Your task to perform on an android device: Do I have any events this weekend? Image 0: 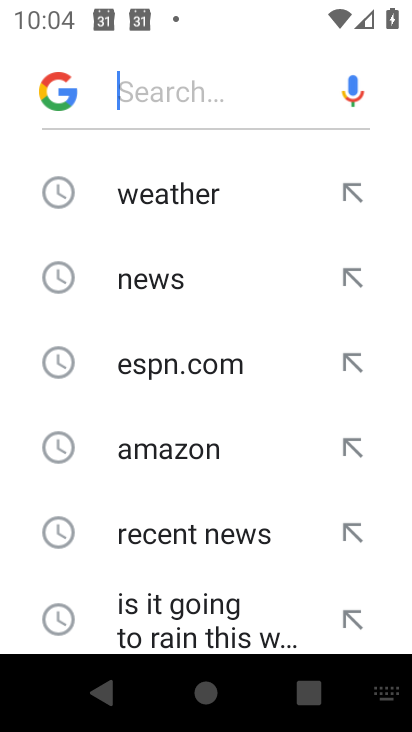
Step 0: press back button
Your task to perform on an android device: Do I have any events this weekend? Image 1: 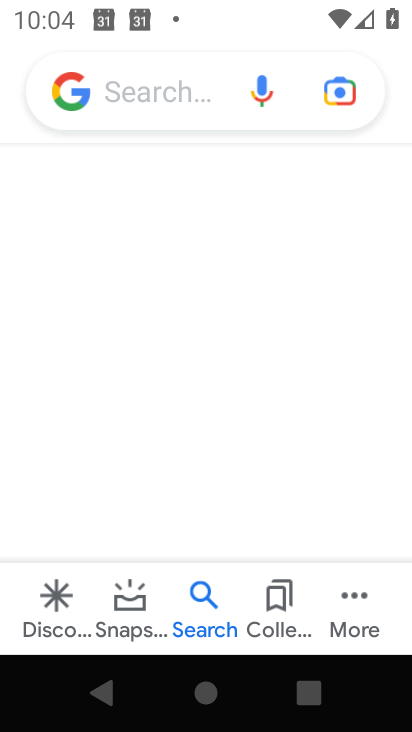
Step 1: press back button
Your task to perform on an android device: Do I have any events this weekend? Image 2: 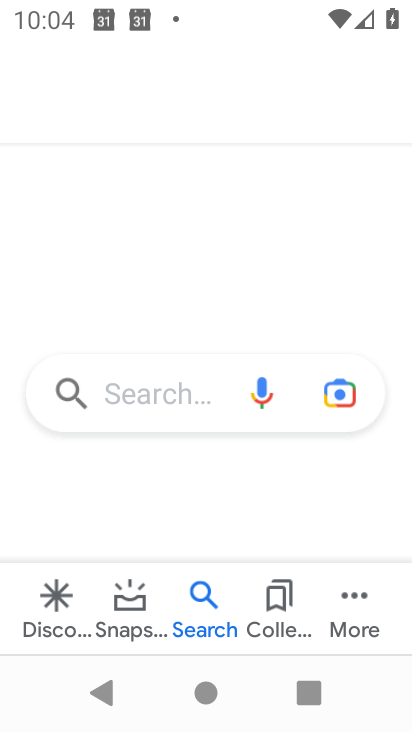
Step 2: press back button
Your task to perform on an android device: Do I have any events this weekend? Image 3: 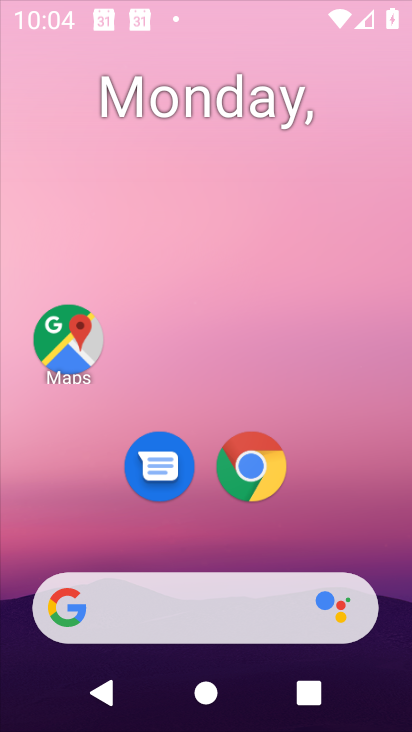
Step 3: press back button
Your task to perform on an android device: Do I have any events this weekend? Image 4: 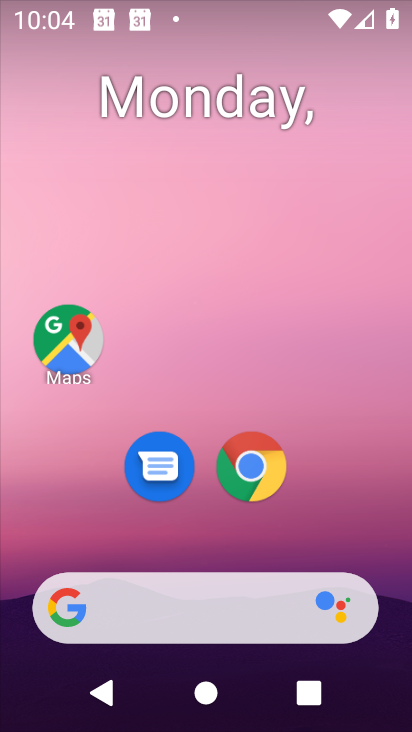
Step 4: press back button
Your task to perform on an android device: Do I have any events this weekend? Image 5: 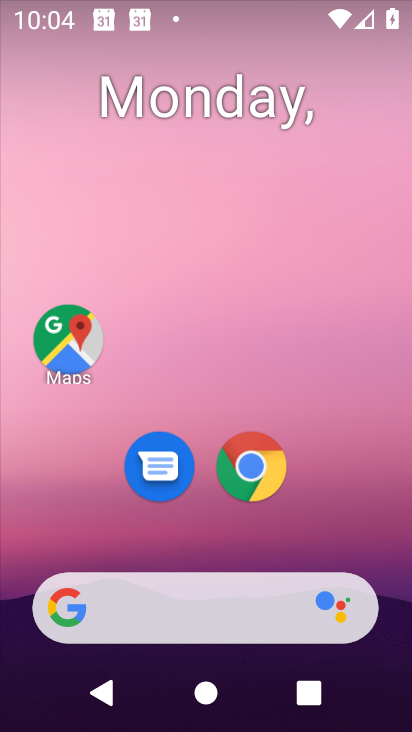
Step 5: drag from (314, 436) to (161, 122)
Your task to perform on an android device: Do I have any events this weekend? Image 6: 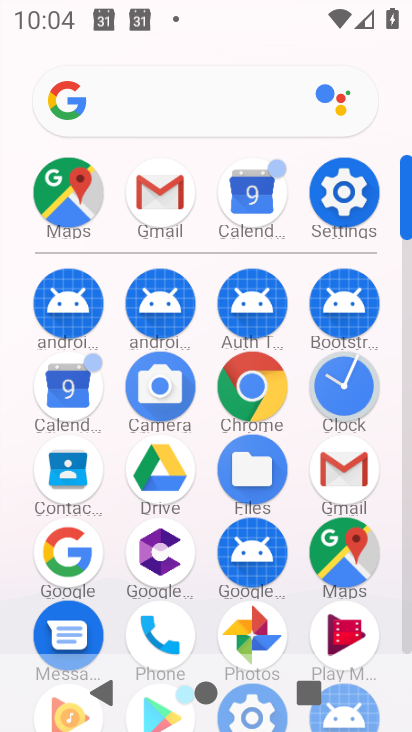
Step 6: click (70, 413)
Your task to perform on an android device: Do I have any events this weekend? Image 7: 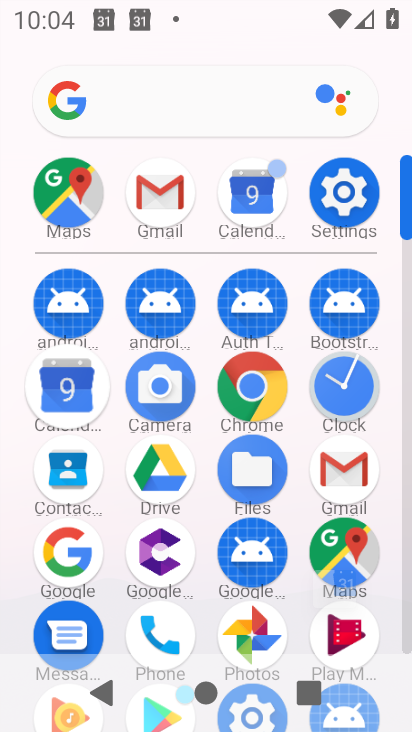
Step 7: click (70, 412)
Your task to perform on an android device: Do I have any events this weekend? Image 8: 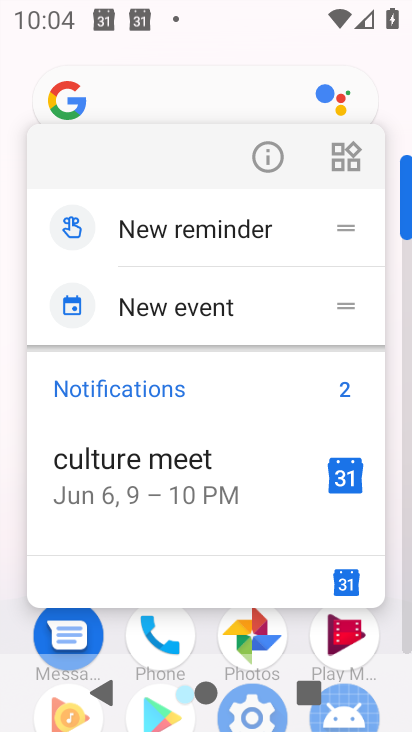
Step 8: click (73, 408)
Your task to perform on an android device: Do I have any events this weekend? Image 9: 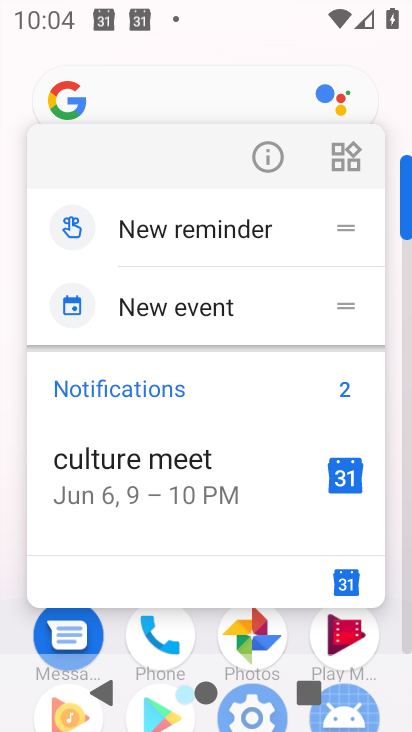
Step 9: click (186, 92)
Your task to perform on an android device: Do I have any events this weekend? Image 10: 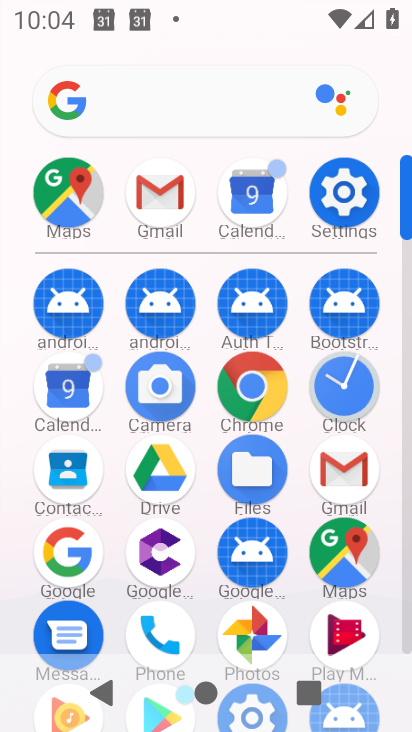
Step 10: click (186, 91)
Your task to perform on an android device: Do I have any events this weekend? Image 11: 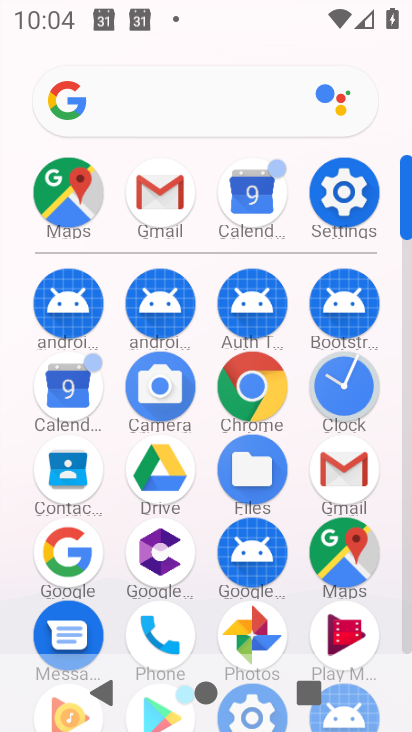
Step 11: click (186, 91)
Your task to perform on an android device: Do I have any events this weekend? Image 12: 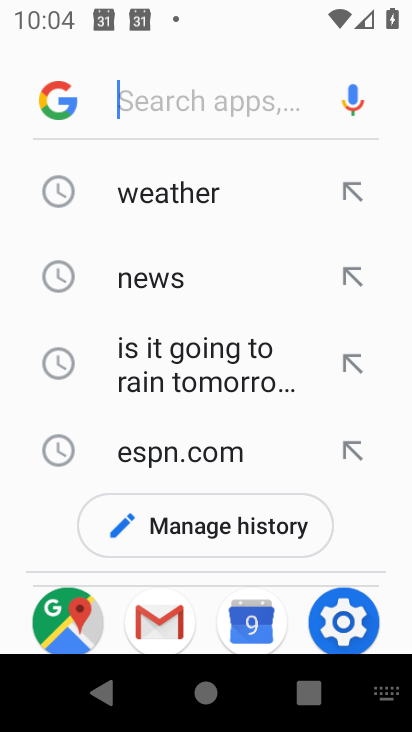
Step 12: click (73, 394)
Your task to perform on an android device: Do I have any events this weekend? Image 13: 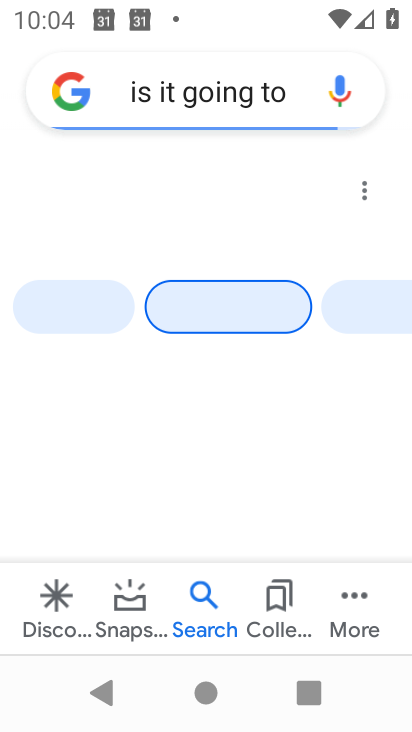
Step 13: press back button
Your task to perform on an android device: Do I have any events this weekend? Image 14: 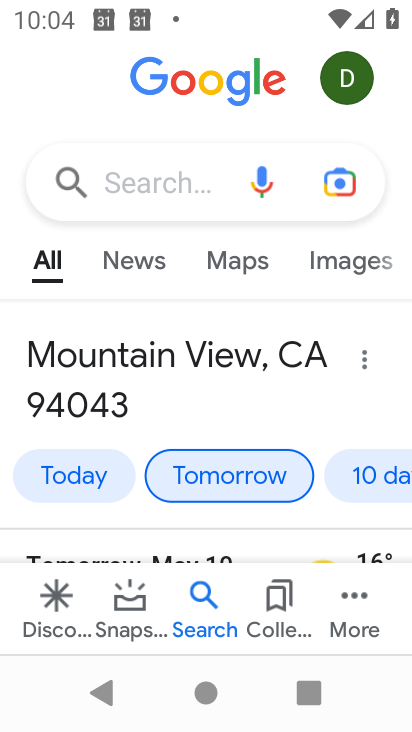
Step 14: press back button
Your task to perform on an android device: Do I have any events this weekend? Image 15: 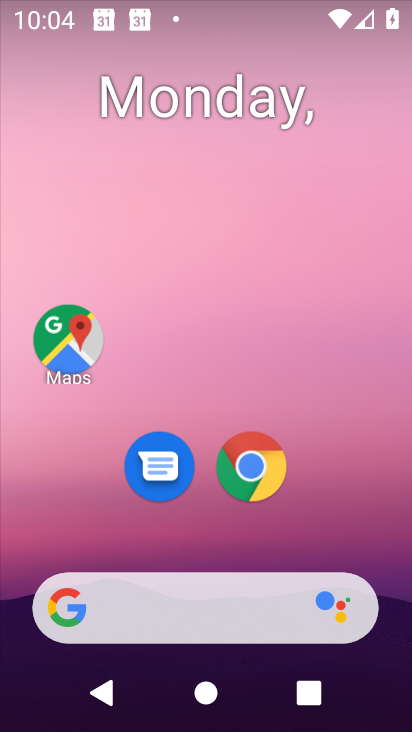
Step 15: drag from (307, 514) to (198, 7)
Your task to perform on an android device: Do I have any events this weekend? Image 16: 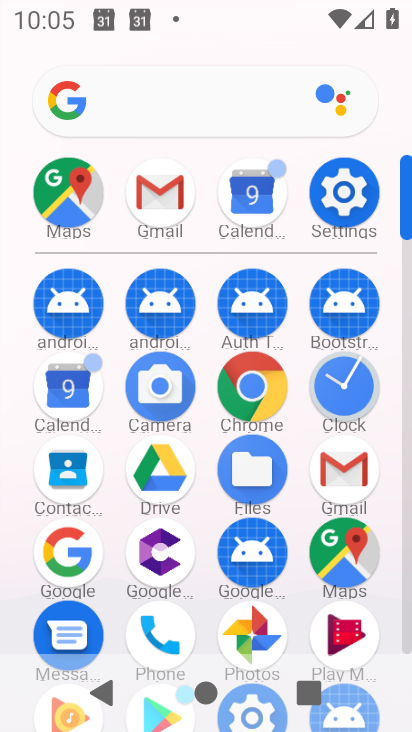
Step 16: click (50, 401)
Your task to perform on an android device: Do I have any events this weekend? Image 17: 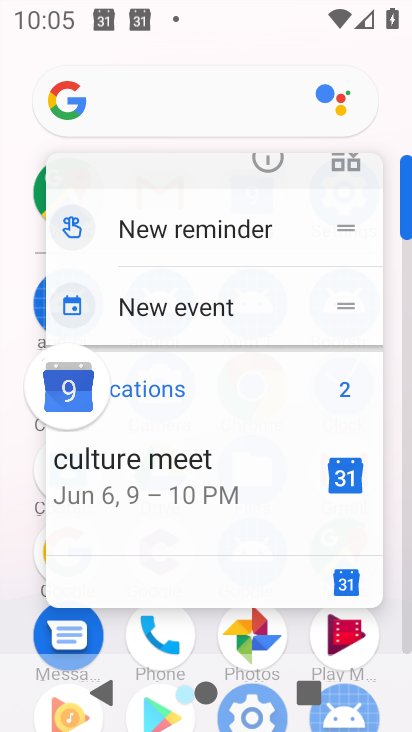
Step 17: click (56, 395)
Your task to perform on an android device: Do I have any events this weekend? Image 18: 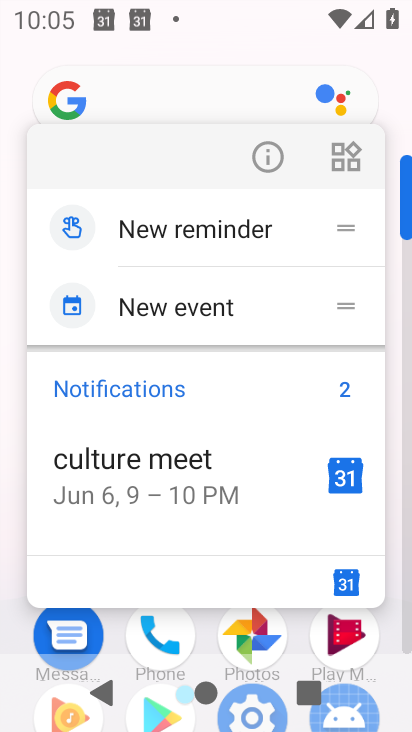
Step 18: click (60, 390)
Your task to perform on an android device: Do I have any events this weekend? Image 19: 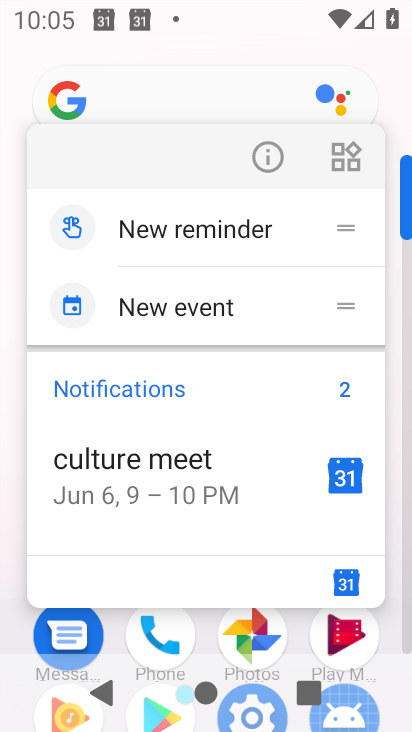
Step 19: click (61, 389)
Your task to perform on an android device: Do I have any events this weekend? Image 20: 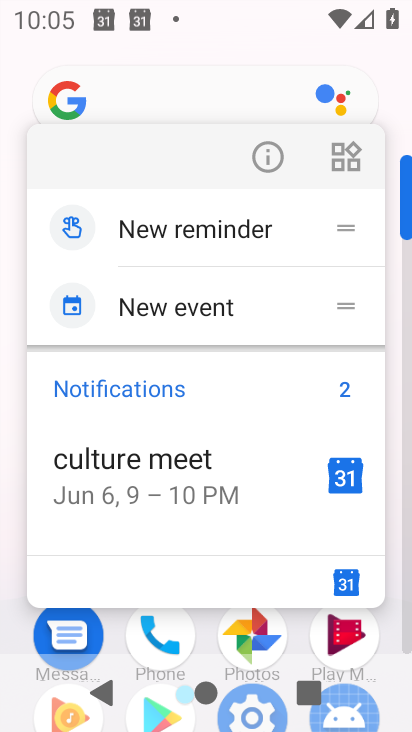
Step 20: click (65, 387)
Your task to perform on an android device: Do I have any events this weekend? Image 21: 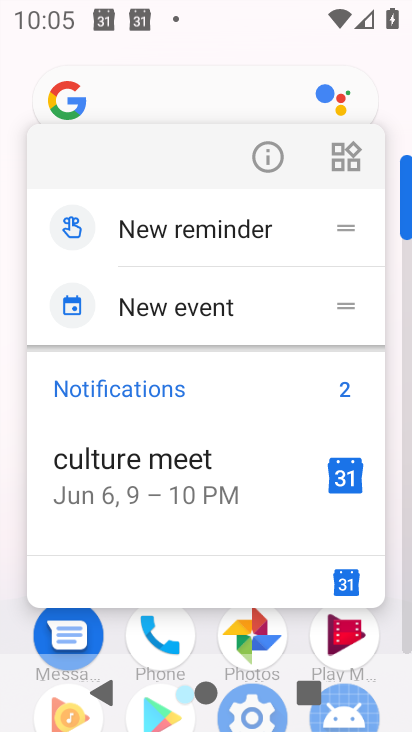
Step 21: click (168, 309)
Your task to perform on an android device: Do I have any events this weekend? Image 22: 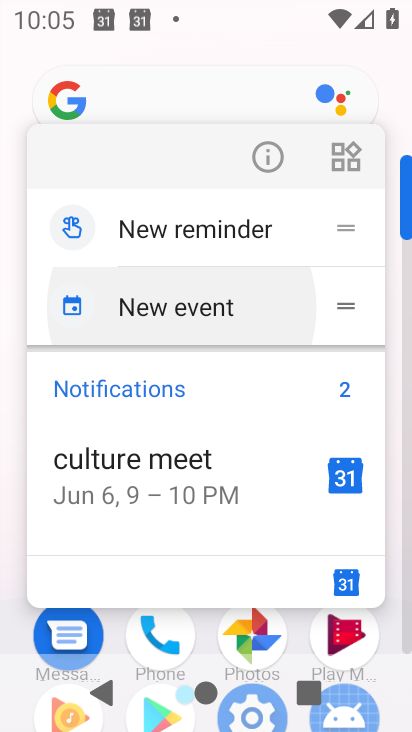
Step 22: click (168, 304)
Your task to perform on an android device: Do I have any events this weekend? Image 23: 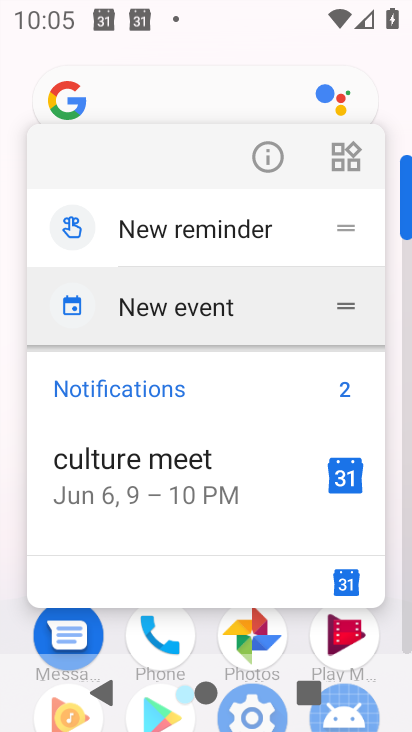
Step 23: click (175, 303)
Your task to perform on an android device: Do I have any events this weekend? Image 24: 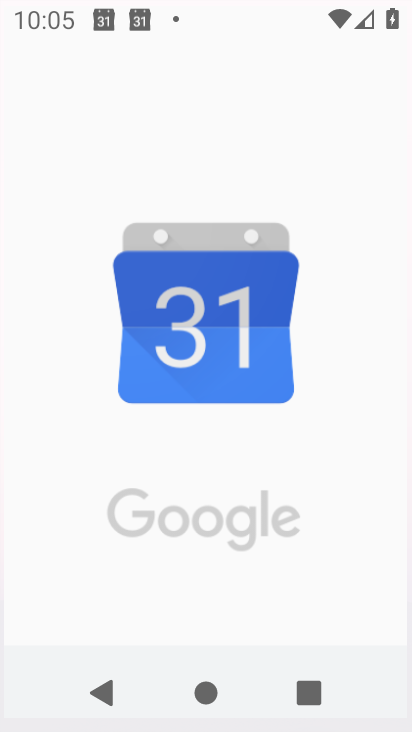
Step 24: click (184, 298)
Your task to perform on an android device: Do I have any events this weekend? Image 25: 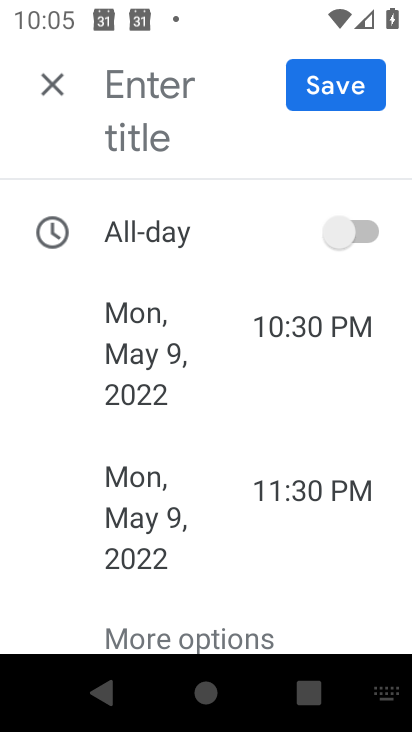
Step 25: drag from (243, 481) to (166, 84)
Your task to perform on an android device: Do I have any events this weekend? Image 26: 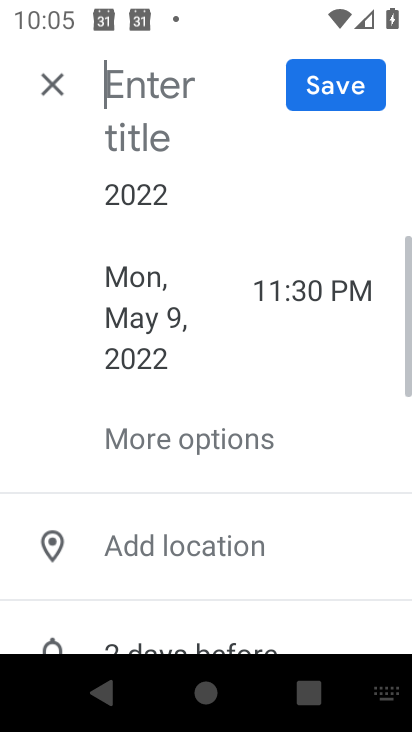
Step 26: drag from (167, 341) to (137, 70)
Your task to perform on an android device: Do I have any events this weekend? Image 27: 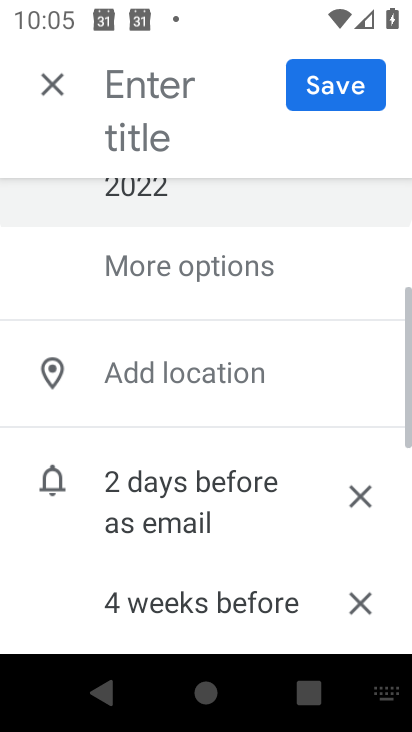
Step 27: drag from (171, 309) to (134, 114)
Your task to perform on an android device: Do I have any events this weekend? Image 28: 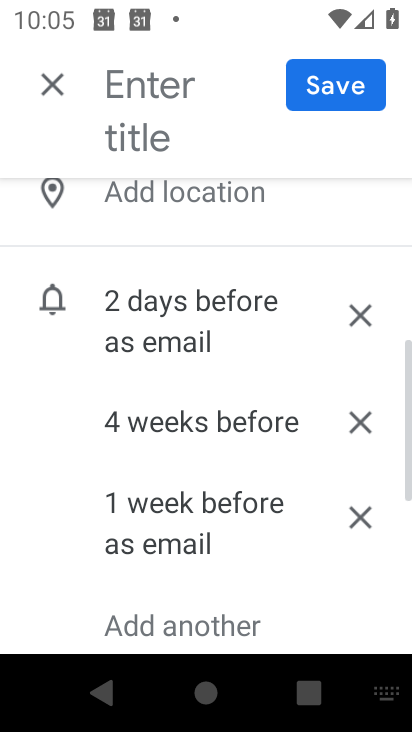
Step 28: click (42, 75)
Your task to perform on an android device: Do I have any events this weekend? Image 29: 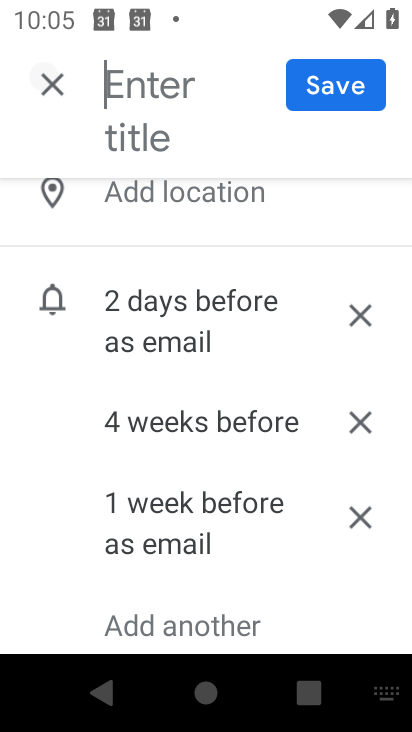
Step 29: click (44, 69)
Your task to perform on an android device: Do I have any events this weekend? Image 30: 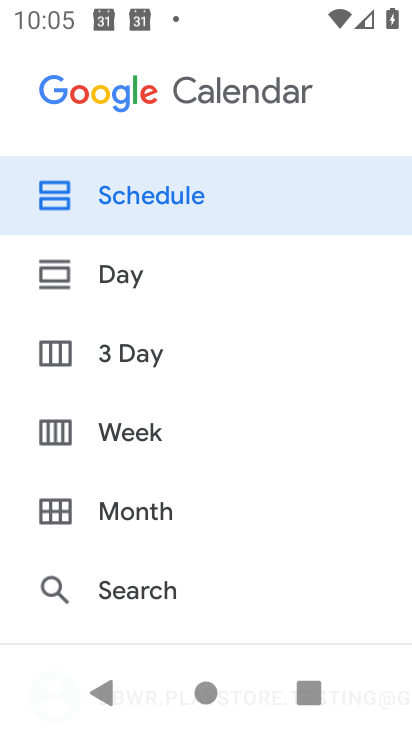
Step 30: click (137, 193)
Your task to perform on an android device: Do I have any events this weekend? Image 31: 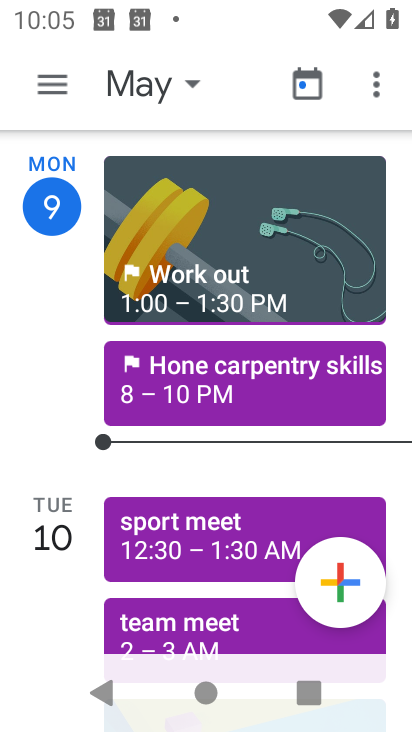
Step 31: drag from (185, 455) to (177, 126)
Your task to perform on an android device: Do I have any events this weekend? Image 32: 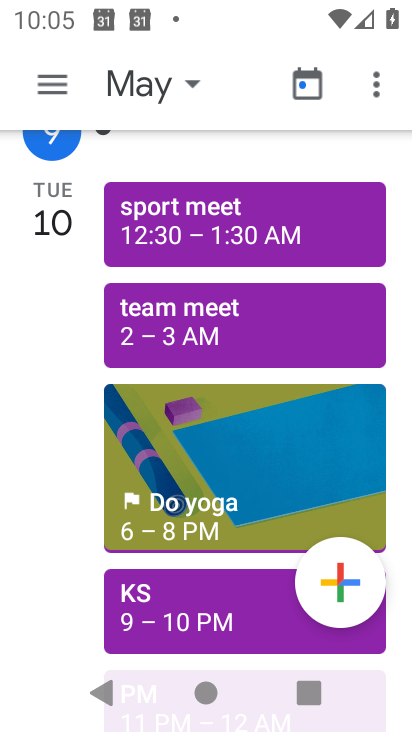
Step 32: drag from (197, 403) to (195, 111)
Your task to perform on an android device: Do I have any events this weekend? Image 33: 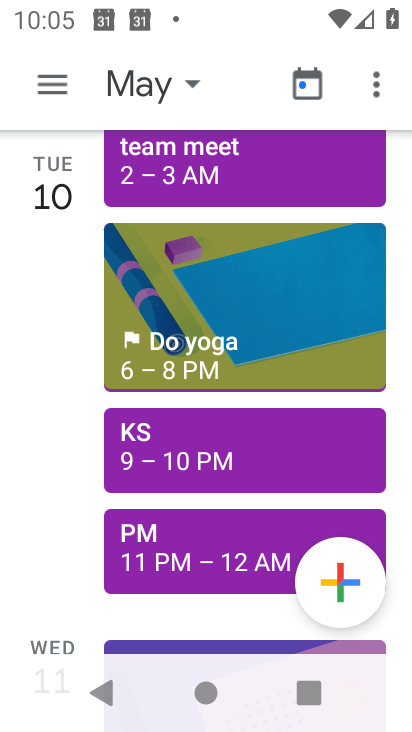
Step 33: drag from (152, 287) to (166, 31)
Your task to perform on an android device: Do I have any events this weekend? Image 34: 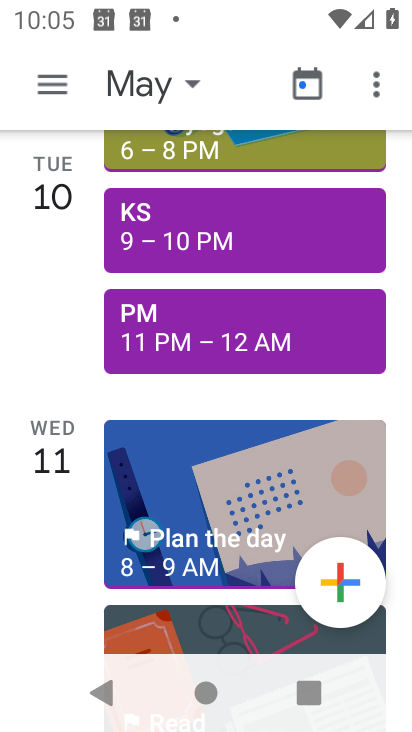
Step 34: drag from (196, 368) to (196, 218)
Your task to perform on an android device: Do I have any events this weekend? Image 35: 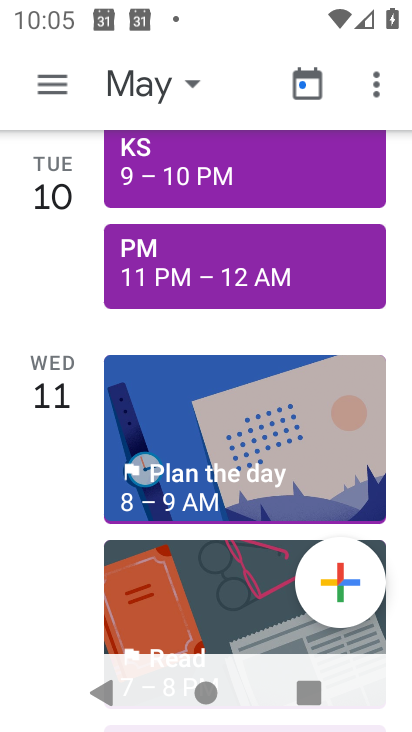
Step 35: drag from (156, 425) to (153, 126)
Your task to perform on an android device: Do I have any events this weekend? Image 36: 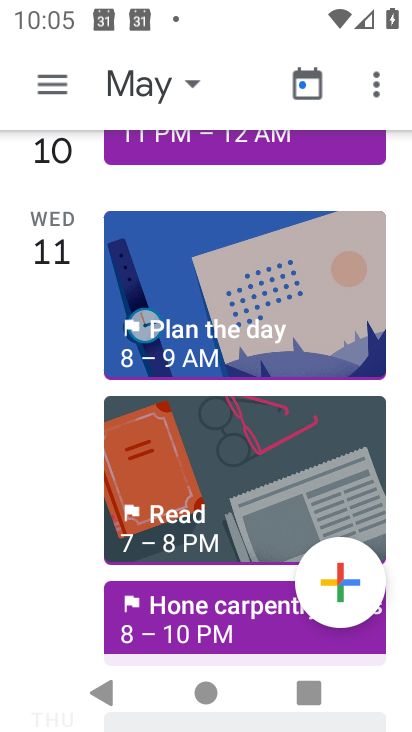
Step 36: drag from (175, 249) to (192, 96)
Your task to perform on an android device: Do I have any events this weekend? Image 37: 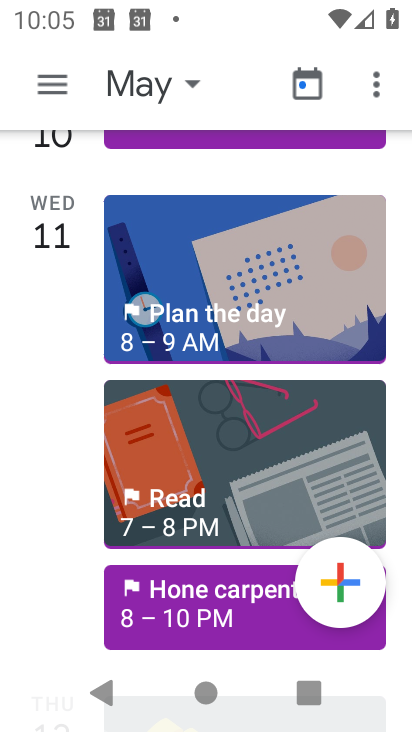
Step 37: drag from (212, 363) to (247, 71)
Your task to perform on an android device: Do I have any events this weekend? Image 38: 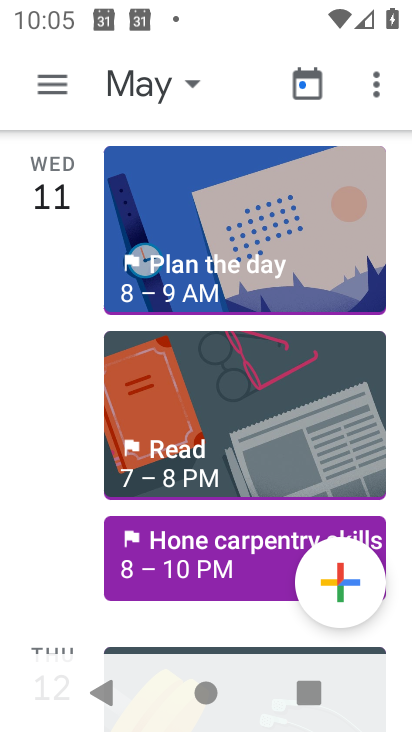
Step 38: drag from (225, 436) to (221, 64)
Your task to perform on an android device: Do I have any events this weekend? Image 39: 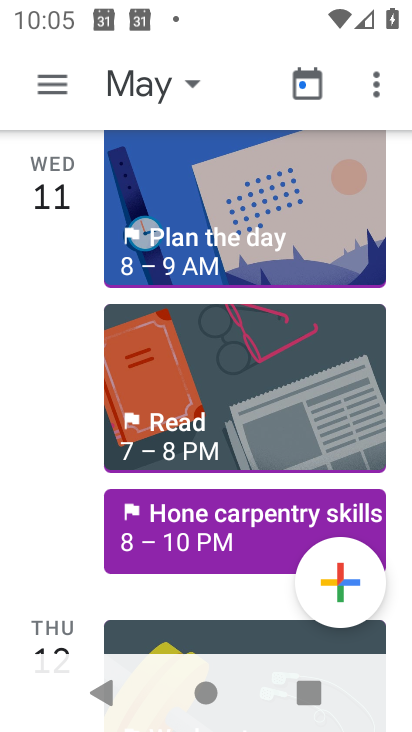
Step 39: drag from (163, 381) to (165, 60)
Your task to perform on an android device: Do I have any events this weekend? Image 40: 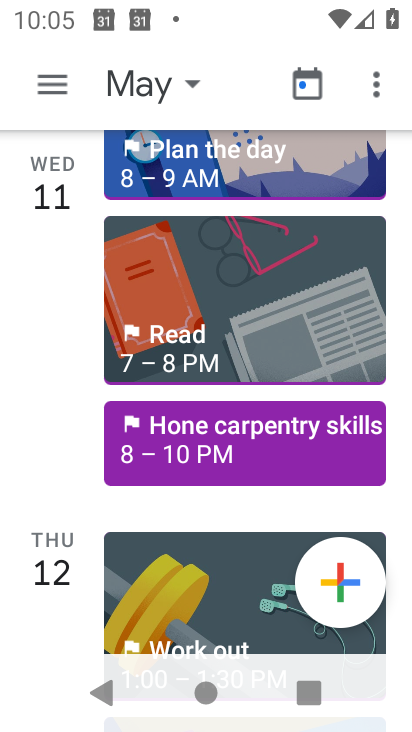
Step 40: drag from (199, 445) to (196, 99)
Your task to perform on an android device: Do I have any events this weekend? Image 41: 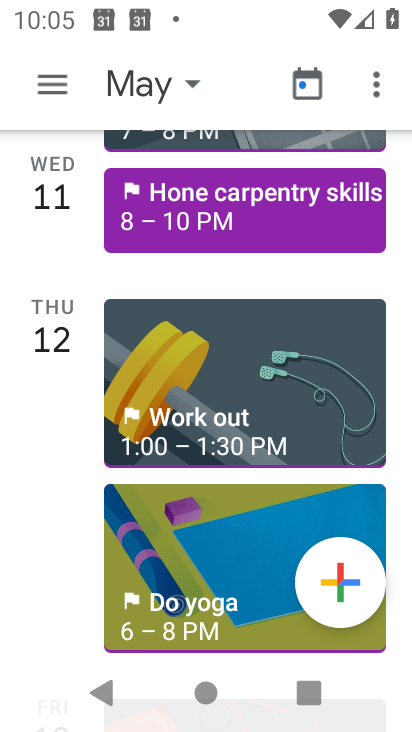
Step 41: drag from (243, 367) to (249, 121)
Your task to perform on an android device: Do I have any events this weekend? Image 42: 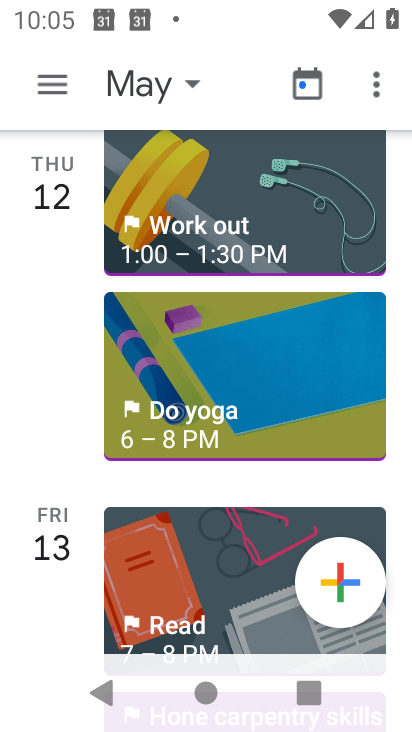
Step 42: drag from (239, 439) to (236, 220)
Your task to perform on an android device: Do I have any events this weekend? Image 43: 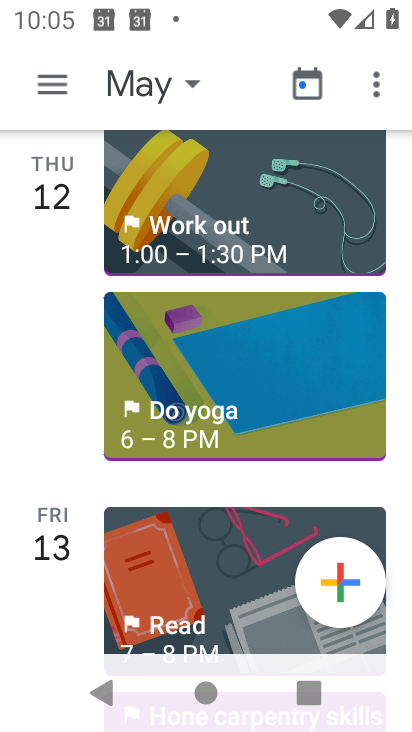
Step 43: drag from (179, 538) to (173, 118)
Your task to perform on an android device: Do I have any events this weekend? Image 44: 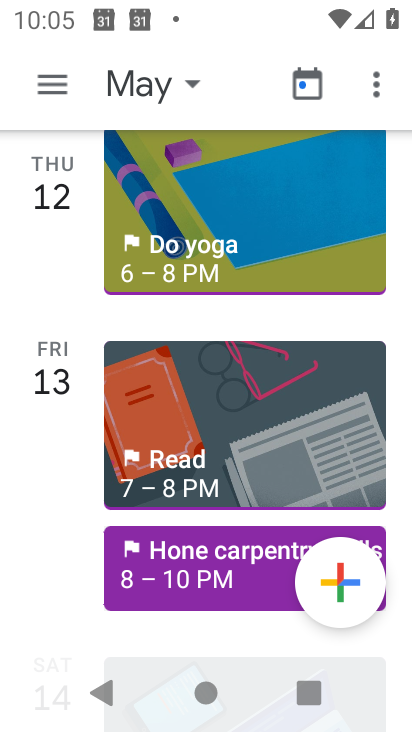
Step 44: drag from (133, 580) to (163, 155)
Your task to perform on an android device: Do I have any events this weekend? Image 45: 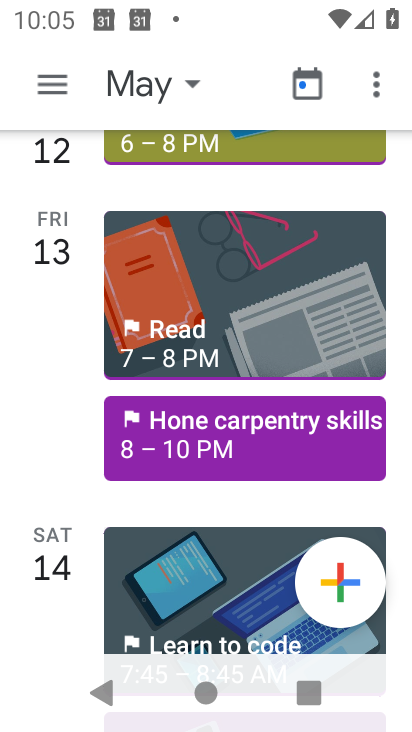
Step 45: drag from (205, 564) to (193, 369)
Your task to perform on an android device: Do I have any events this weekend? Image 46: 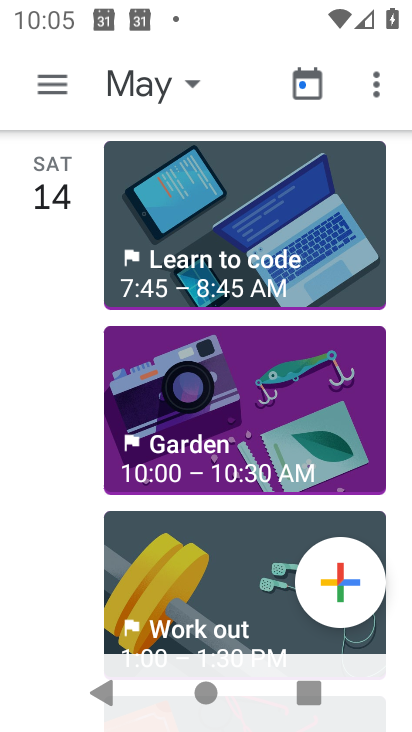
Step 46: drag from (206, 548) to (189, 264)
Your task to perform on an android device: Do I have any events this weekend? Image 47: 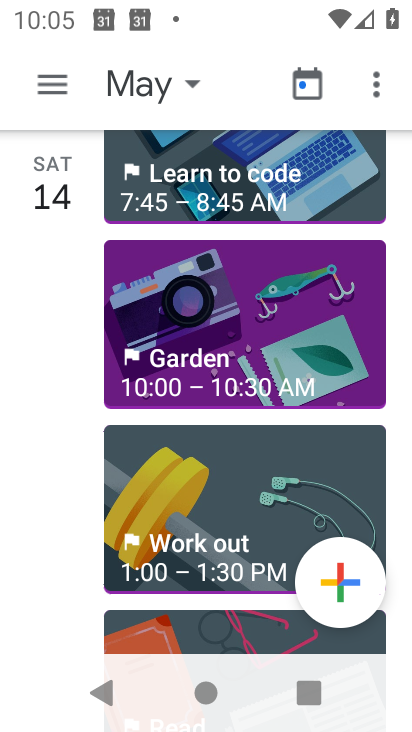
Step 47: drag from (219, 516) to (199, 270)
Your task to perform on an android device: Do I have any events this weekend? Image 48: 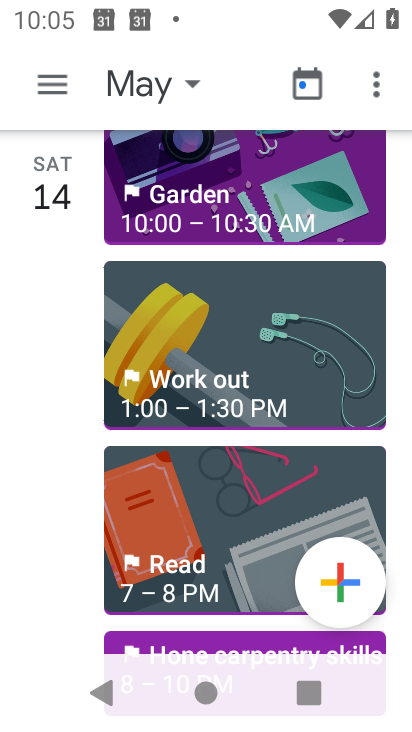
Step 48: drag from (217, 556) to (213, 294)
Your task to perform on an android device: Do I have any events this weekend? Image 49: 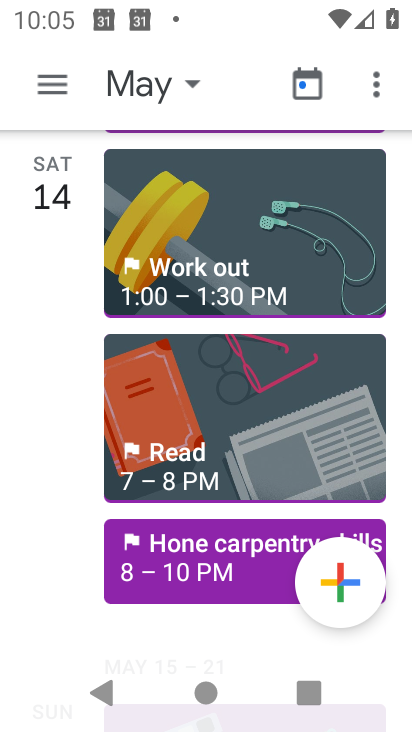
Step 49: click (190, 254)
Your task to perform on an android device: Do I have any events this weekend? Image 50: 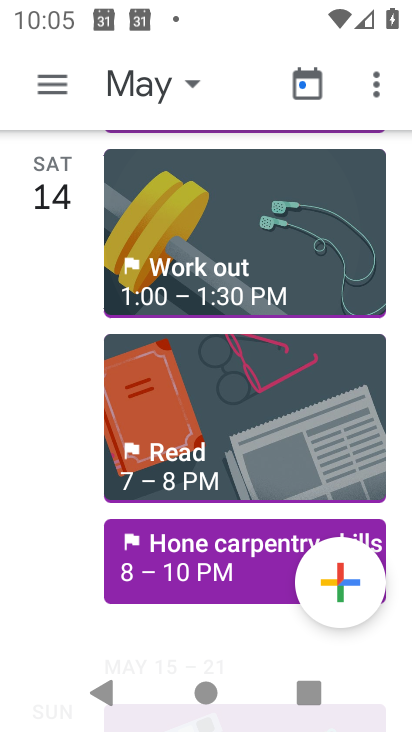
Step 50: click (190, 254)
Your task to perform on an android device: Do I have any events this weekend? Image 51: 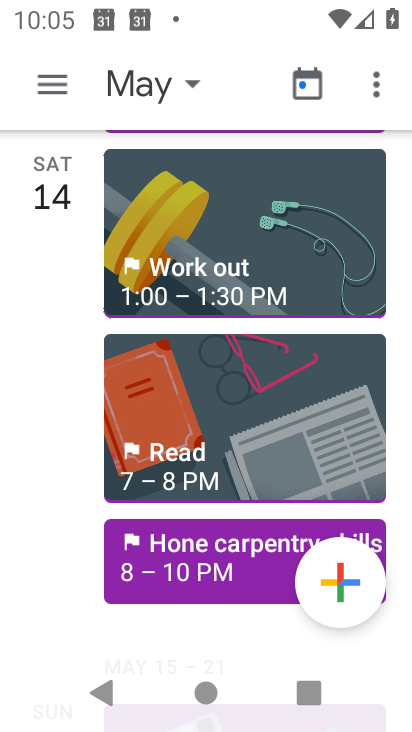
Step 51: click (190, 254)
Your task to perform on an android device: Do I have any events this weekend? Image 52: 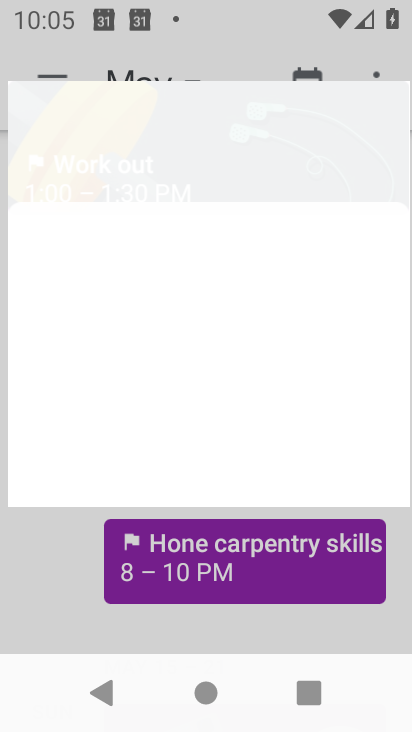
Step 52: click (190, 254)
Your task to perform on an android device: Do I have any events this weekend? Image 53: 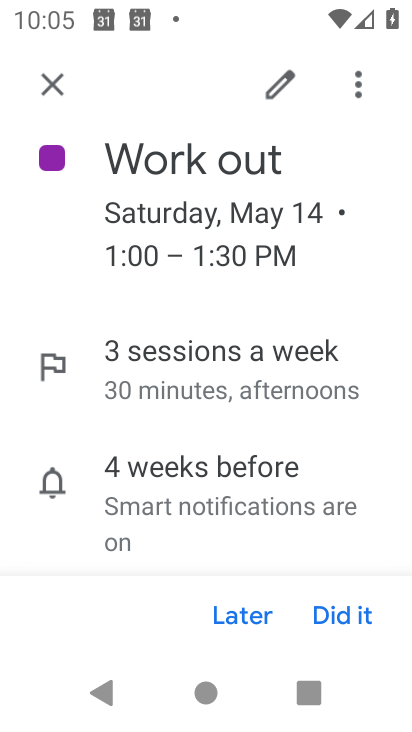
Step 53: task complete